Your task to perform on an android device: Go to location settings Image 0: 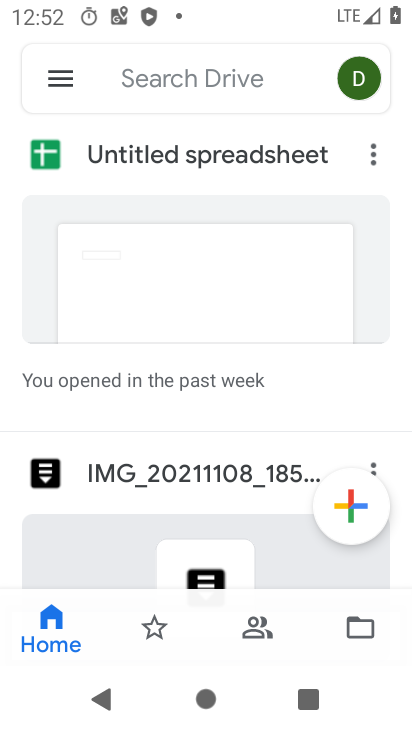
Step 0: press home button
Your task to perform on an android device: Go to location settings Image 1: 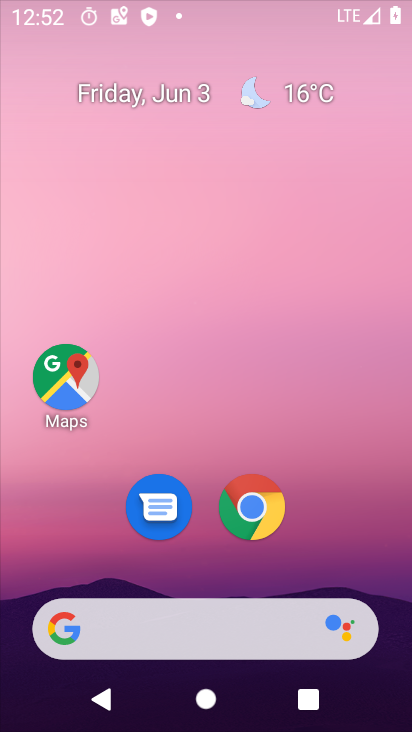
Step 1: drag from (389, 645) to (271, 12)
Your task to perform on an android device: Go to location settings Image 2: 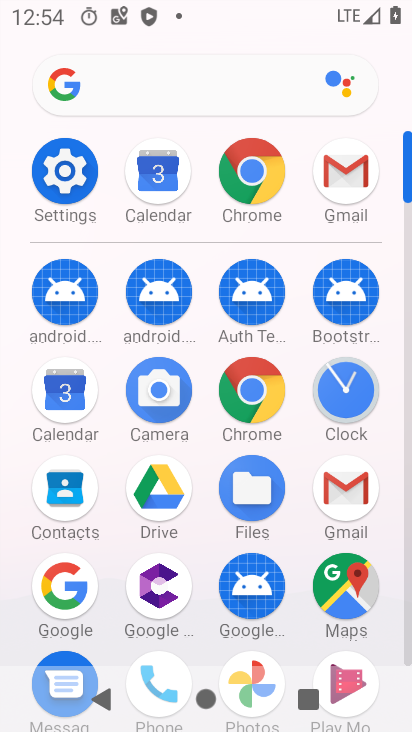
Step 2: click (44, 185)
Your task to perform on an android device: Go to location settings Image 3: 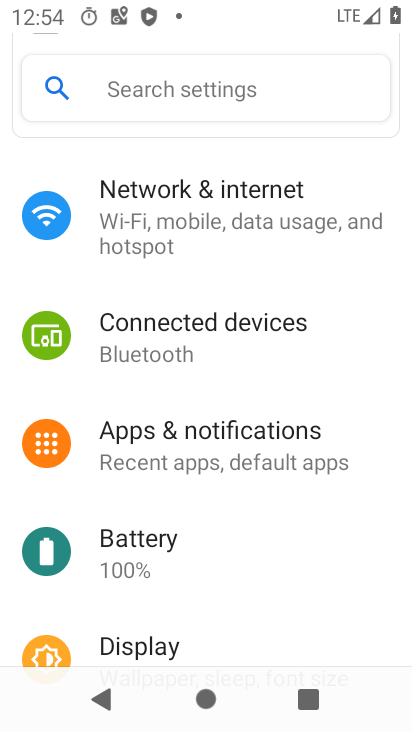
Step 3: drag from (193, 651) to (238, 463)
Your task to perform on an android device: Go to location settings Image 4: 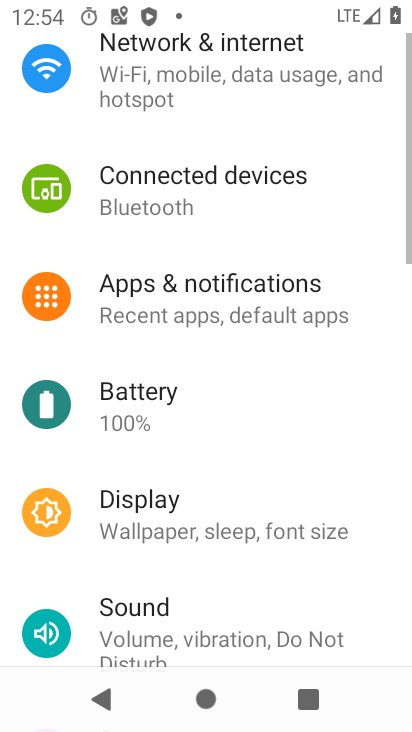
Step 4: click (222, 144)
Your task to perform on an android device: Go to location settings Image 5: 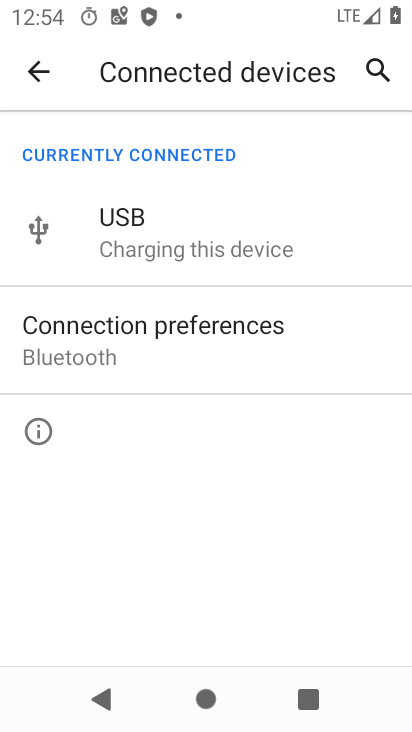
Step 5: press back button
Your task to perform on an android device: Go to location settings Image 6: 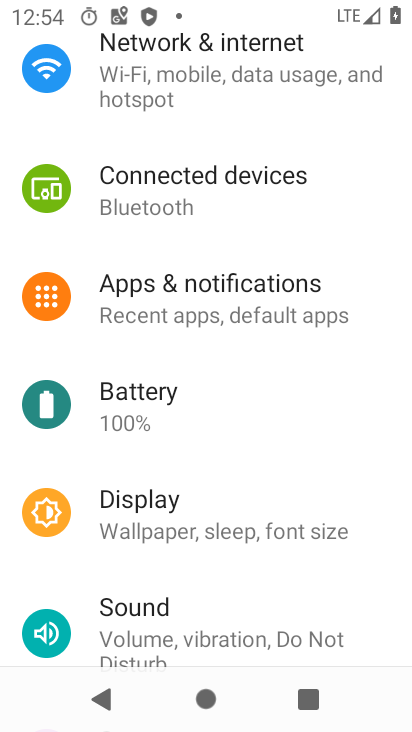
Step 6: drag from (245, 484) to (258, 129)
Your task to perform on an android device: Go to location settings Image 7: 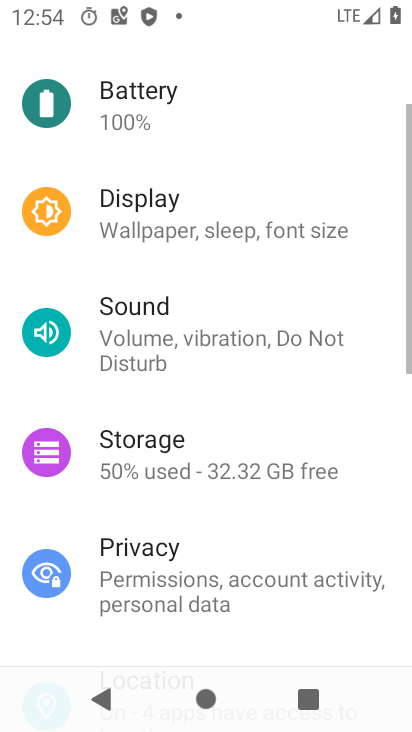
Step 7: click (257, 117)
Your task to perform on an android device: Go to location settings Image 8: 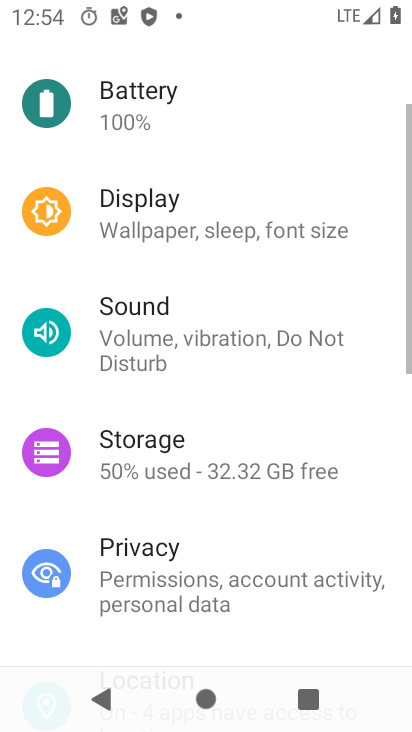
Step 8: drag from (199, 585) to (221, 94)
Your task to perform on an android device: Go to location settings Image 9: 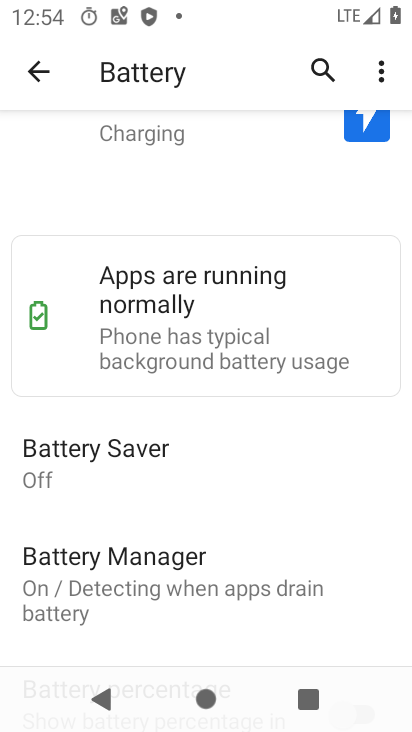
Step 9: press back button
Your task to perform on an android device: Go to location settings Image 10: 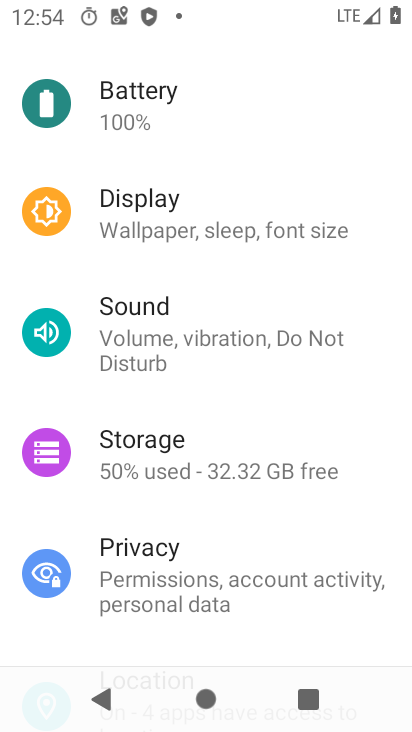
Step 10: drag from (207, 629) to (240, 211)
Your task to perform on an android device: Go to location settings Image 11: 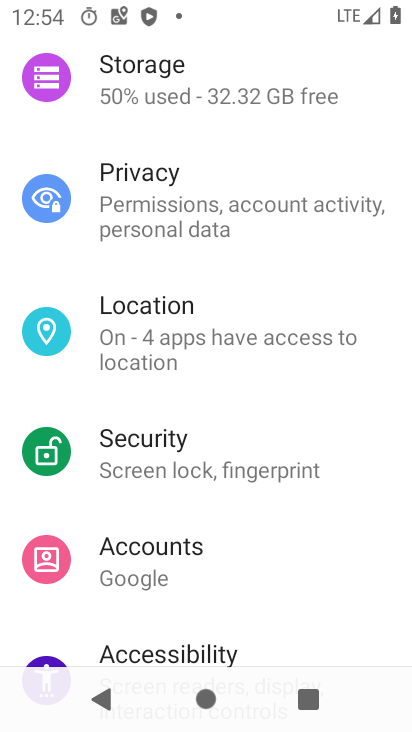
Step 11: click (193, 346)
Your task to perform on an android device: Go to location settings Image 12: 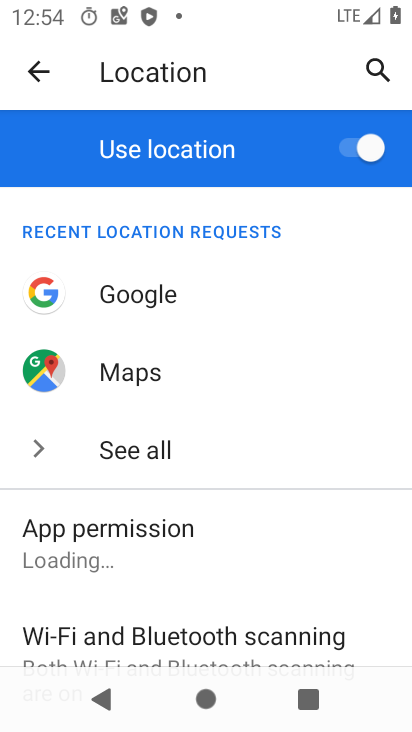
Step 12: task complete